Your task to perform on an android device: What's on my calendar today? Image 0: 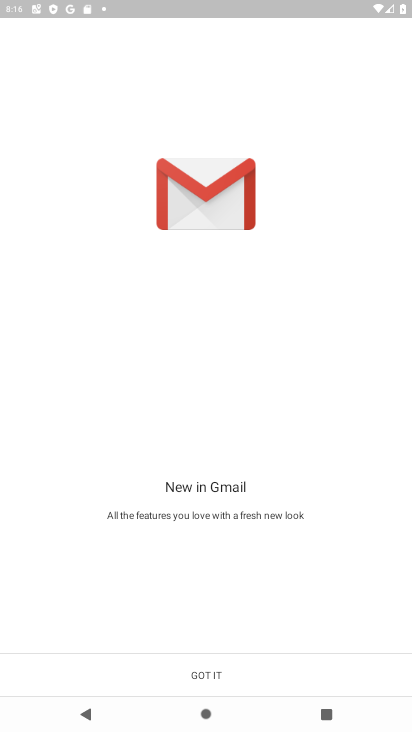
Step 0: press home button
Your task to perform on an android device: What's on my calendar today? Image 1: 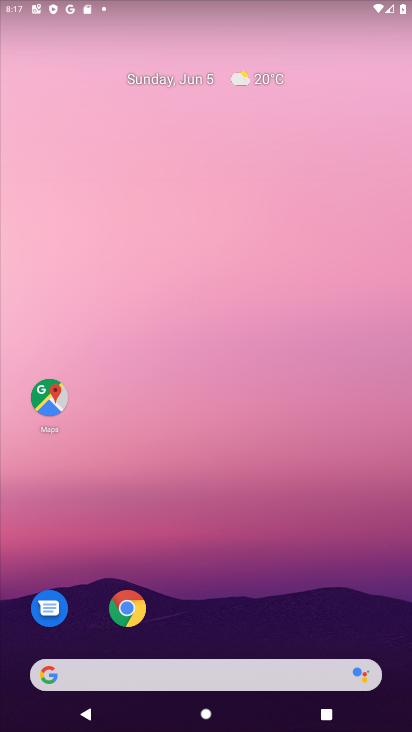
Step 1: drag from (4, 719) to (289, 229)
Your task to perform on an android device: What's on my calendar today? Image 2: 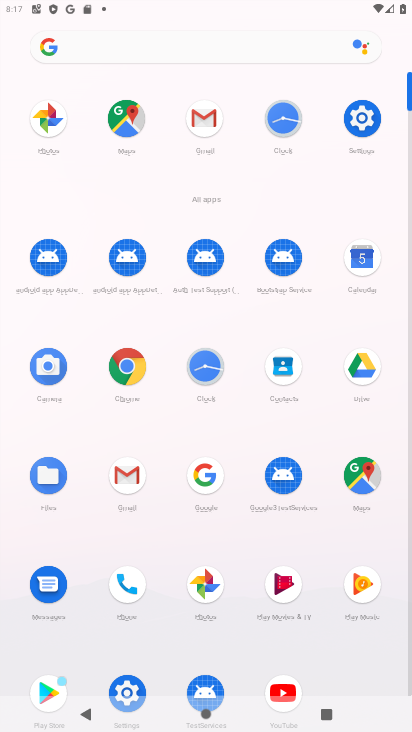
Step 2: click (370, 261)
Your task to perform on an android device: What's on my calendar today? Image 3: 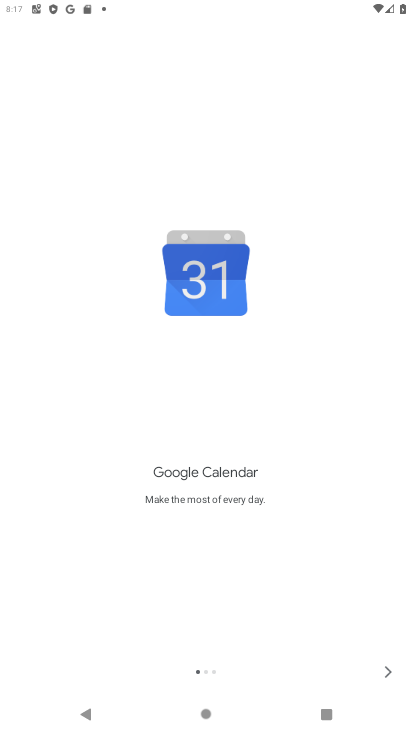
Step 3: click (393, 670)
Your task to perform on an android device: What's on my calendar today? Image 4: 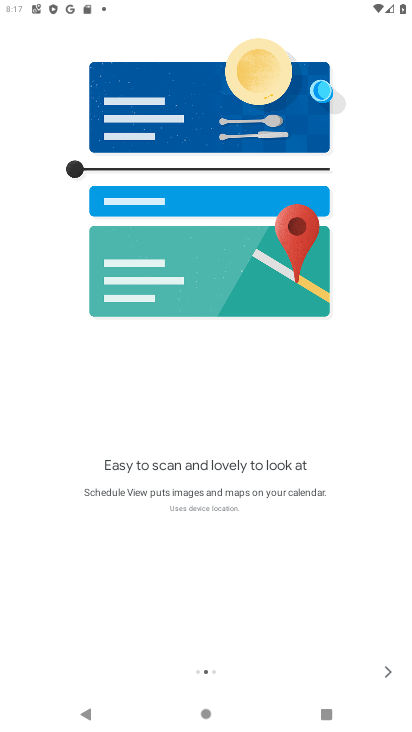
Step 4: click (394, 676)
Your task to perform on an android device: What's on my calendar today? Image 5: 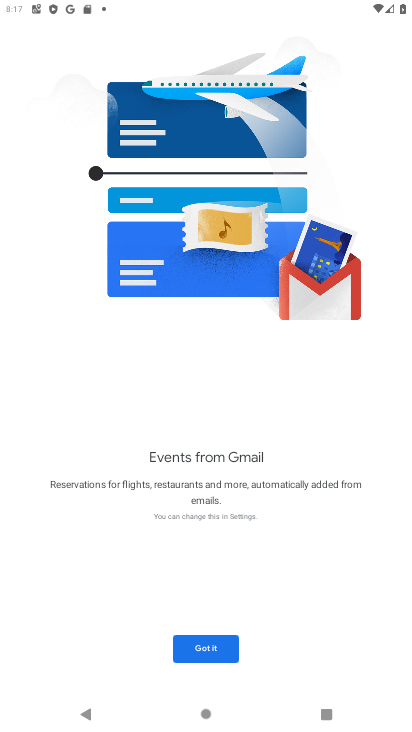
Step 5: click (222, 650)
Your task to perform on an android device: What's on my calendar today? Image 6: 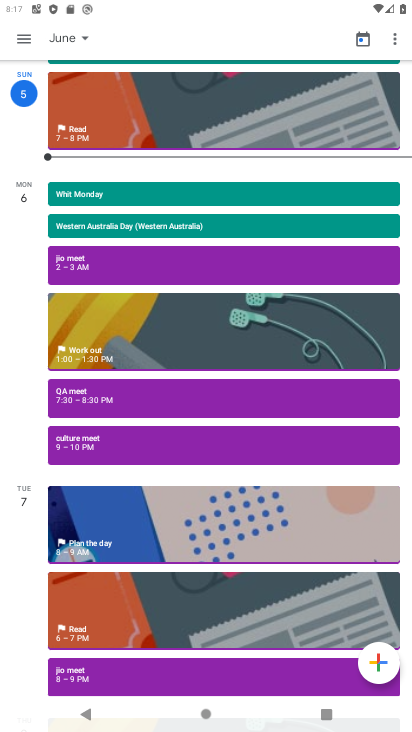
Step 6: click (78, 32)
Your task to perform on an android device: What's on my calendar today? Image 7: 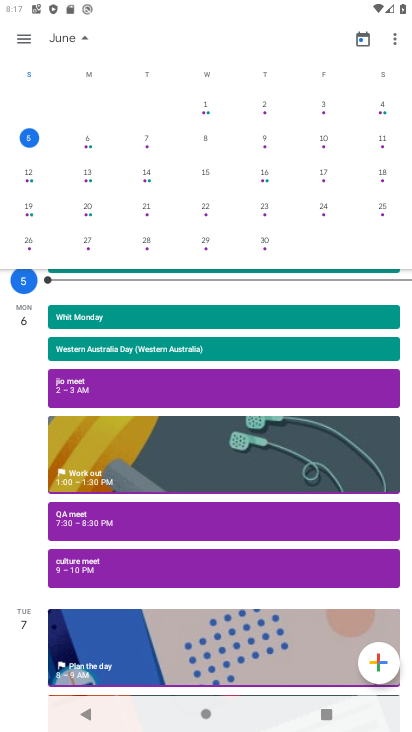
Step 7: click (29, 139)
Your task to perform on an android device: What's on my calendar today? Image 8: 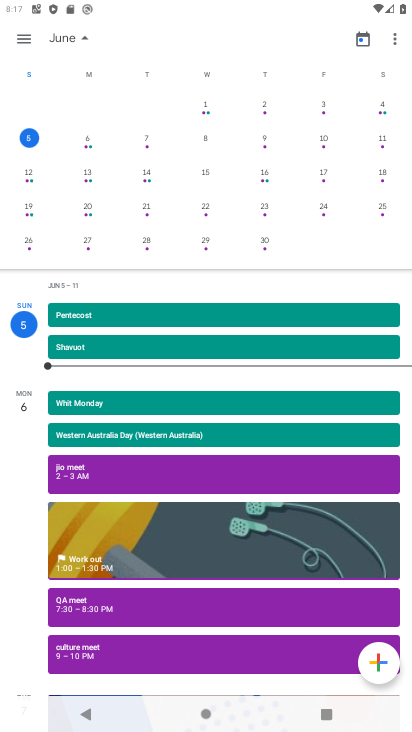
Step 8: task complete